Your task to perform on an android device: What is the recent news? Image 0: 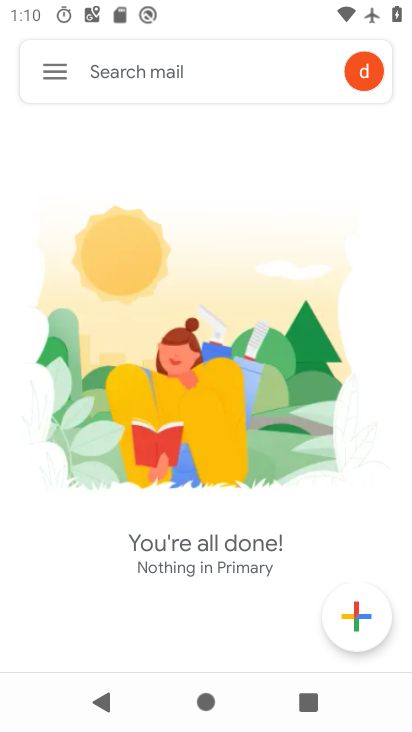
Step 0: press home button
Your task to perform on an android device: What is the recent news? Image 1: 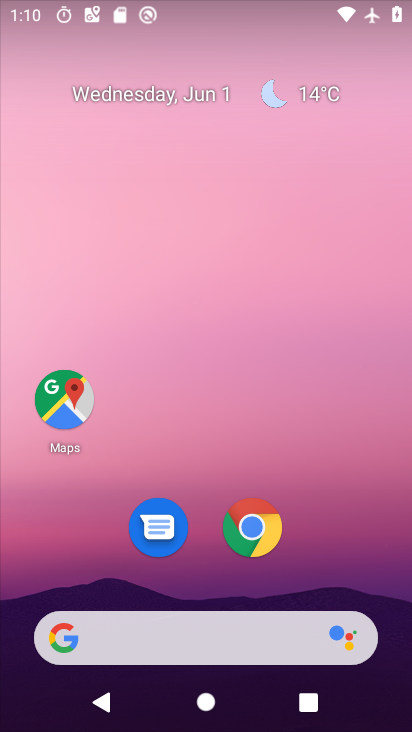
Step 1: click (97, 635)
Your task to perform on an android device: What is the recent news? Image 2: 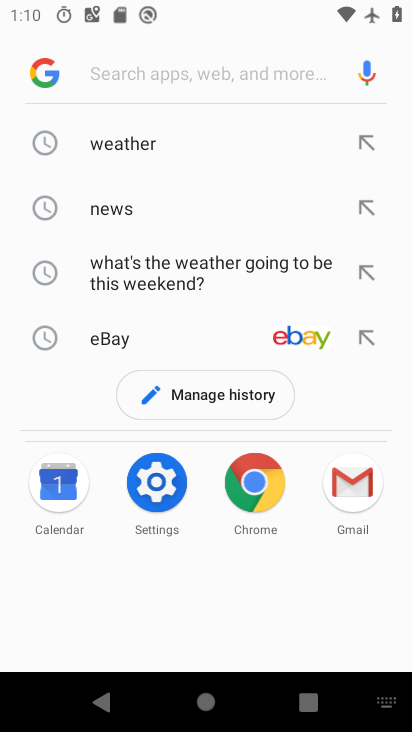
Step 2: click (120, 79)
Your task to perform on an android device: What is the recent news? Image 3: 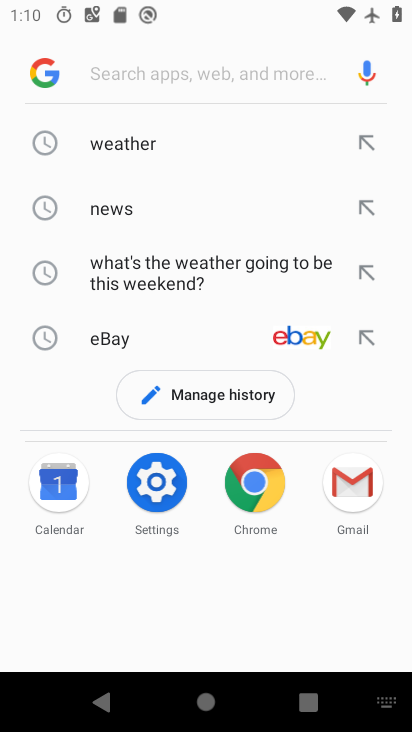
Step 3: type "recent news"
Your task to perform on an android device: What is the recent news? Image 4: 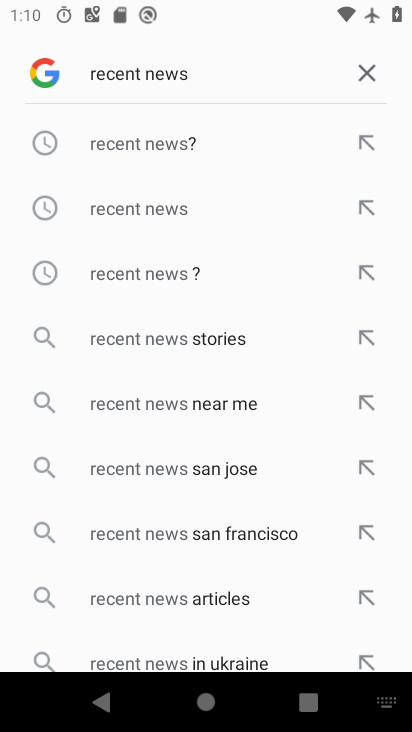
Step 4: click (100, 211)
Your task to perform on an android device: What is the recent news? Image 5: 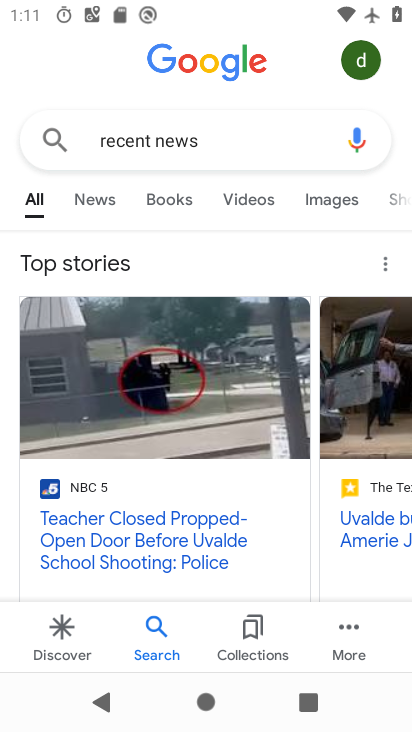
Step 5: drag from (182, 510) to (149, 258)
Your task to perform on an android device: What is the recent news? Image 6: 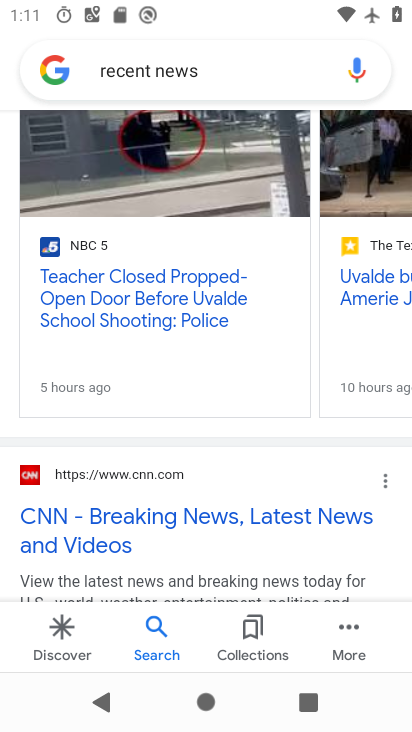
Step 6: drag from (203, 501) to (181, 291)
Your task to perform on an android device: What is the recent news? Image 7: 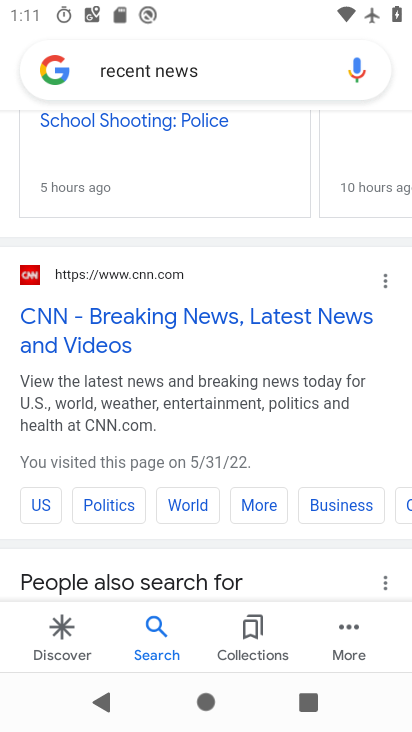
Step 7: drag from (181, 291) to (154, 622)
Your task to perform on an android device: What is the recent news? Image 8: 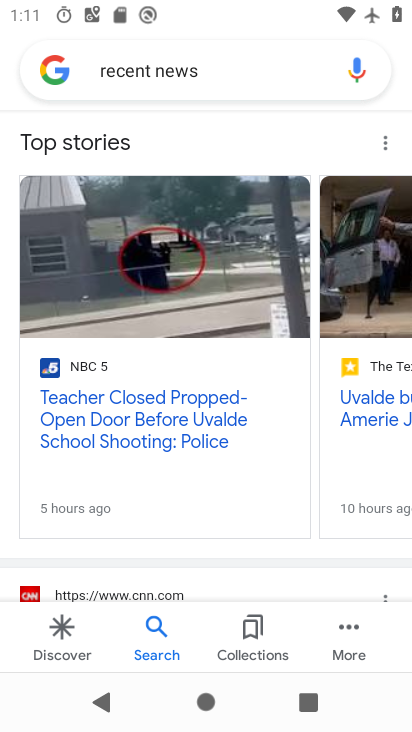
Step 8: drag from (122, 173) to (114, 438)
Your task to perform on an android device: What is the recent news? Image 9: 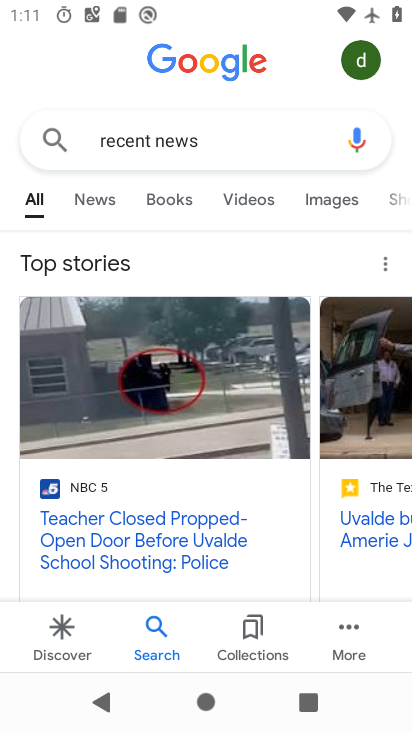
Step 9: click (96, 206)
Your task to perform on an android device: What is the recent news? Image 10: 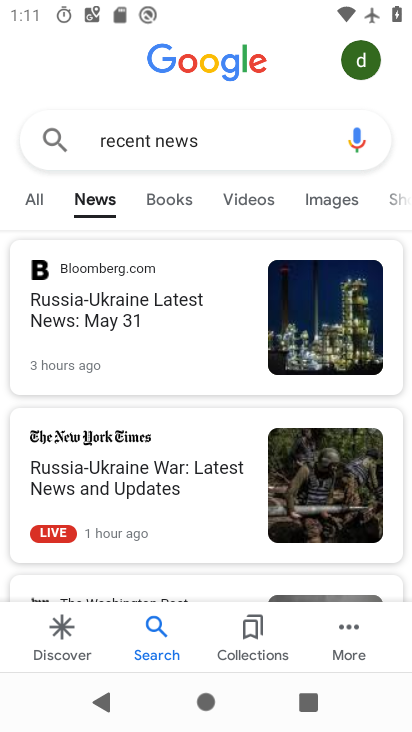
Step 10: drag from (188, 478) to (142, 189)
Your task to perform on an android device: What is the recent news? Image 11: 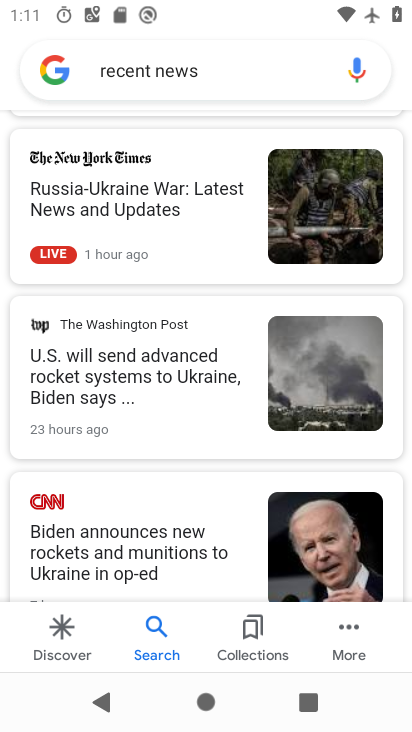
Step 11: click (124, 217)
Your task to perform on an android device: What is the recent news? Image 12: 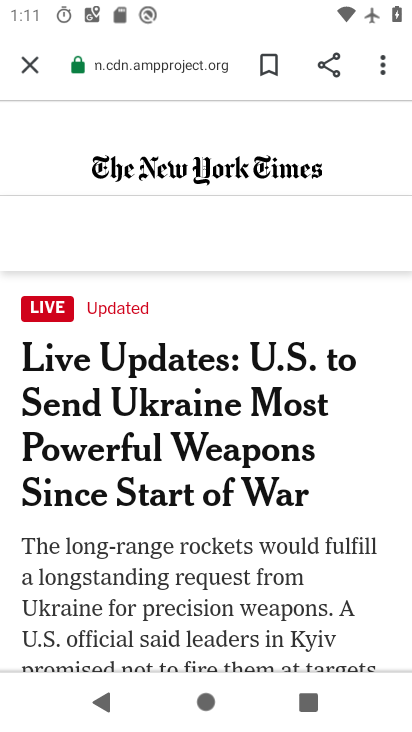
Step 12: task complete